Your task to perform on an android device: turn notification dots off Image 0: 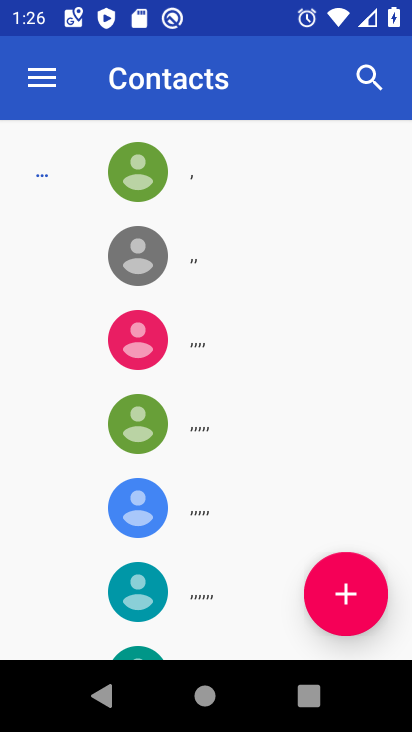
Step 0: press home button
Your task to perform on an android device: turn notification dots off Image 1: 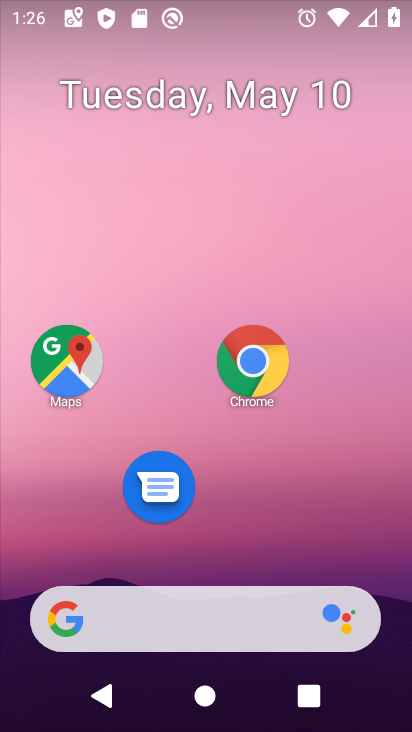
Step 1: drag from (291, 520) to (275, 311)
Your task to perform on an android device: turn notification dots off Image 2: 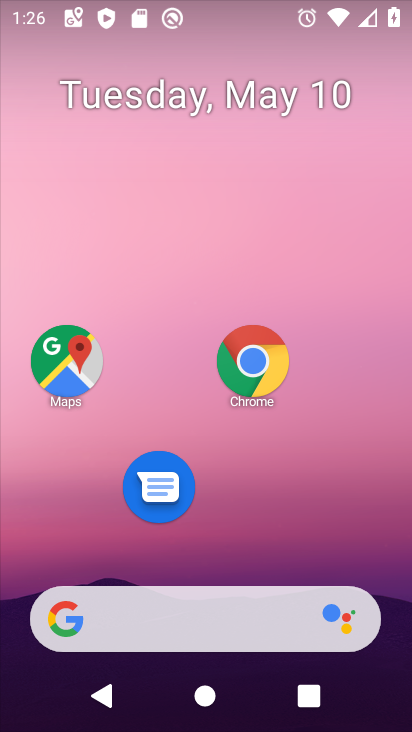
Step 2: drag from (287, 489) to (178, 22)
Your task to perform on an android device: turn notification dots off Image 3: 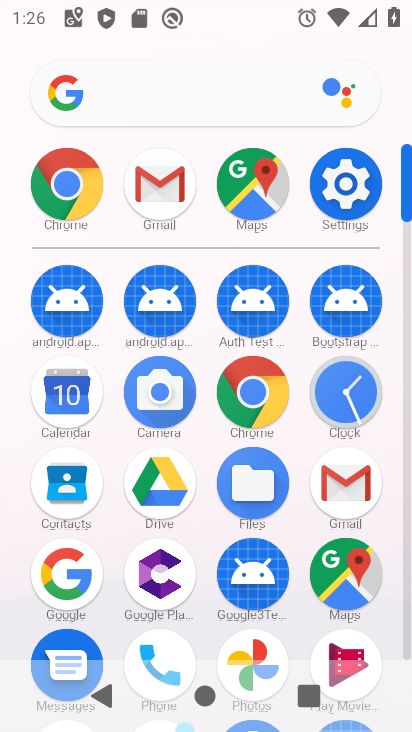
Step 3: click (336, 205)
Your task to perform on an android device: turn notification dots off Image 4: 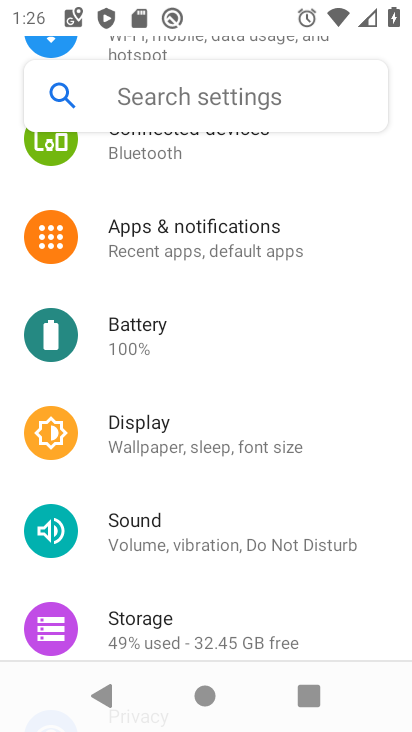
Step 4: drag from (236, 361) to (251, 484)
Your task to perform on an android device: turn notification dots off Image 5: 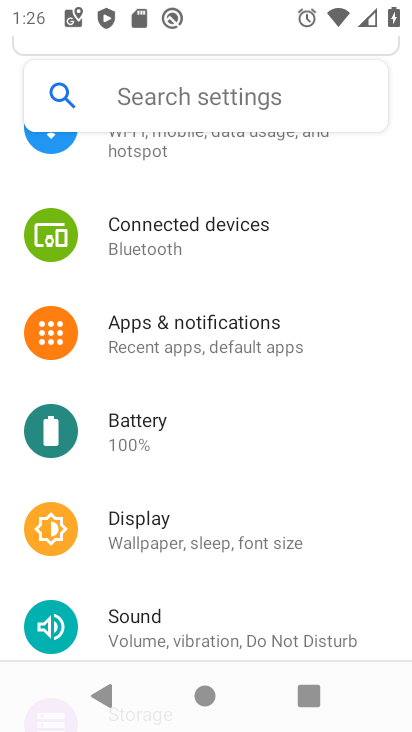
Step 5: drag from (251, 484) to (225, 278)
Your task to perform on an android device: turn notification dots off Image 6: 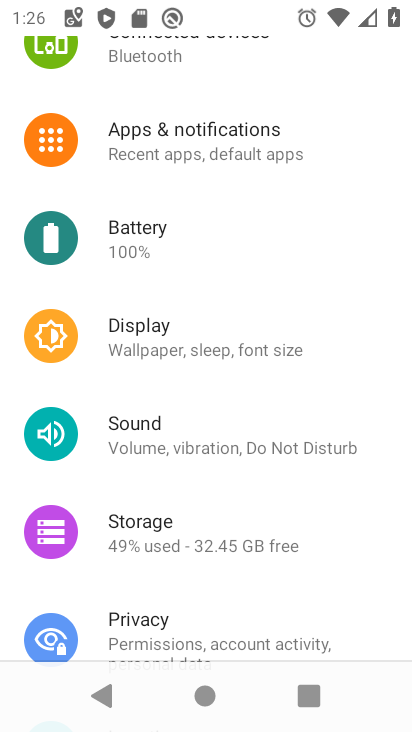
Step 6: drag from (174, 268) to (219, 572)
Your task to perform on an android device: turn notification dots off Image 7: 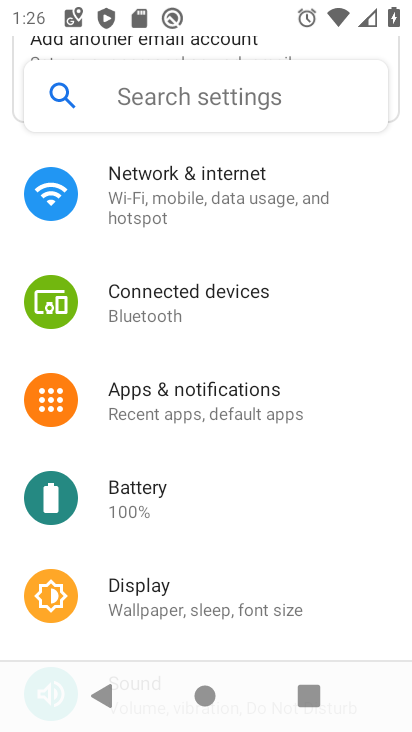
Step 7: click (213, 389)
Your task to perform on an android device: turn notification dots off Image 8: 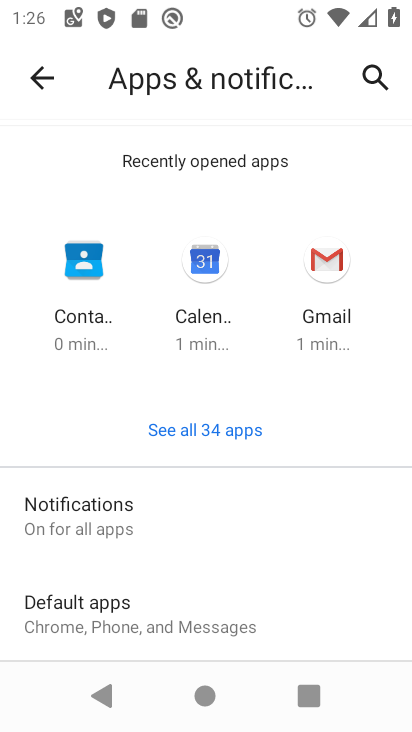
Step 8: drag from (149, 538) to (80, 235)
Your task to perform on an android device: turn notification dots off Image 9: 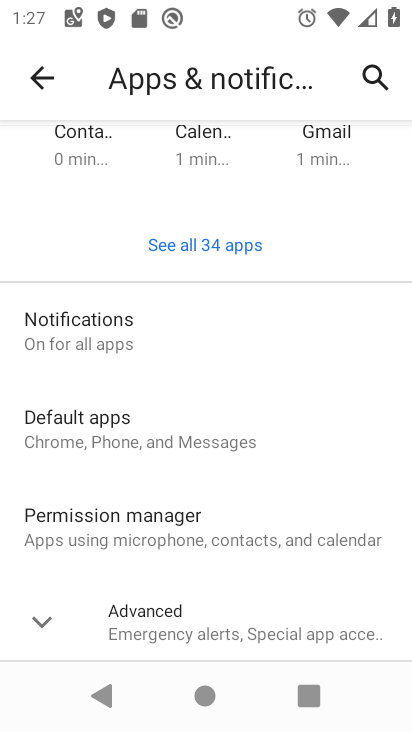
Step 9: click (138, 598)
Your task to perform on an android device: turn notification dots off Image 10: 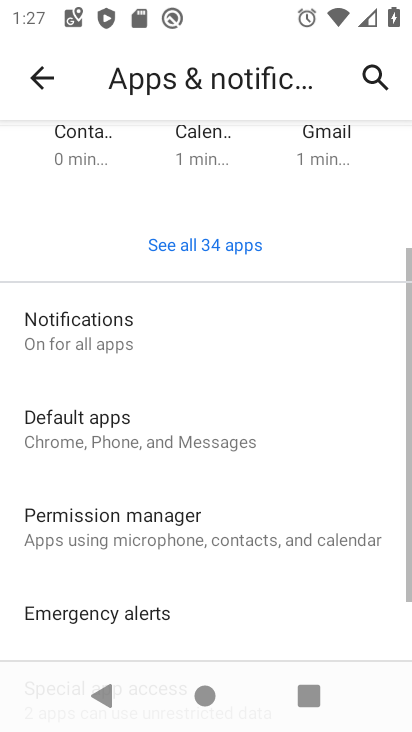
Step 10: drag from (138, 598) to (130, 443)
Your task to perform on an android device: turn notification dots off Image 11: 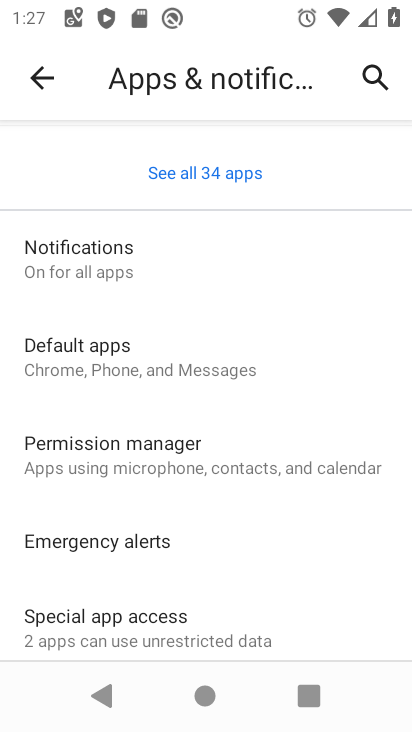
Step 11: click (101, 273)
Your task to perform on an android device: turn notification dots off Image 12: 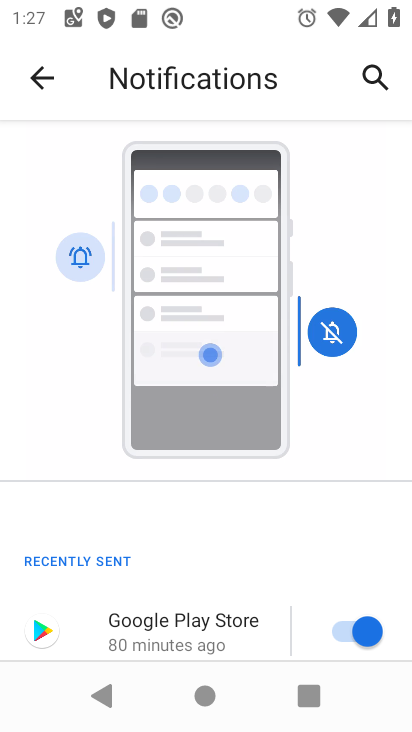
Step 12: drag from (147, 499) to (119, 178)
Your task to perform on an android device: turn notification dots off Image 13: 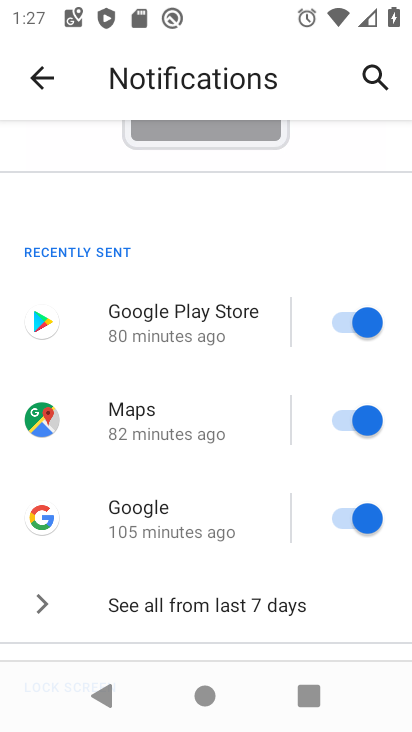
Step 13: drag from (149, 462) to (124, 131)
Your task to perform on an android device: turn notification dots off Image 14: 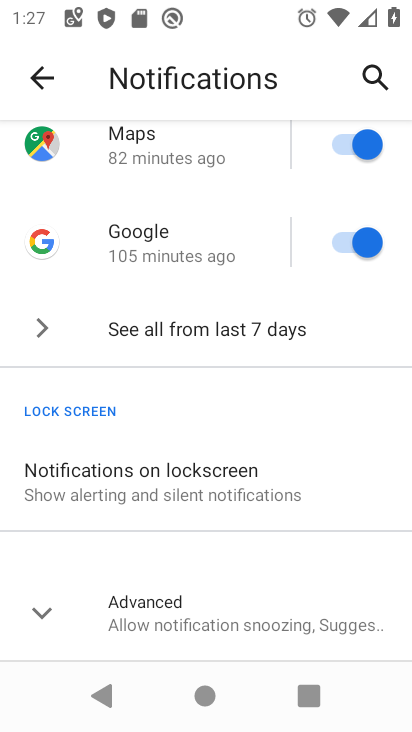
Step 14: click (64, 596)
Your task to perform on an android device: turn notification dots off Image 15: 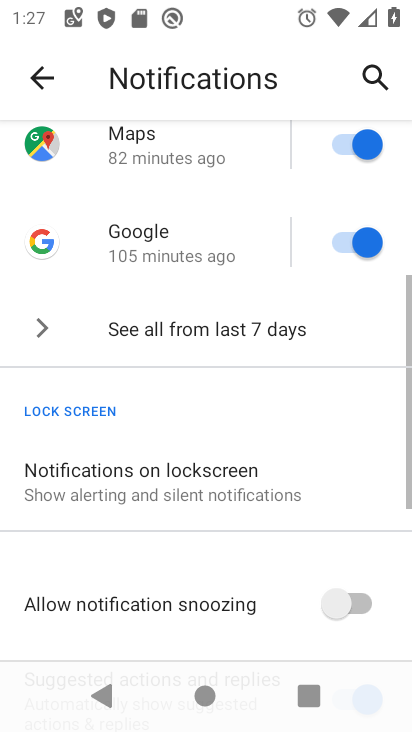
Step 15: drag from (64, 596) to (48, 212)
Your task to perform on an android device: turn notification dots off Image 16: 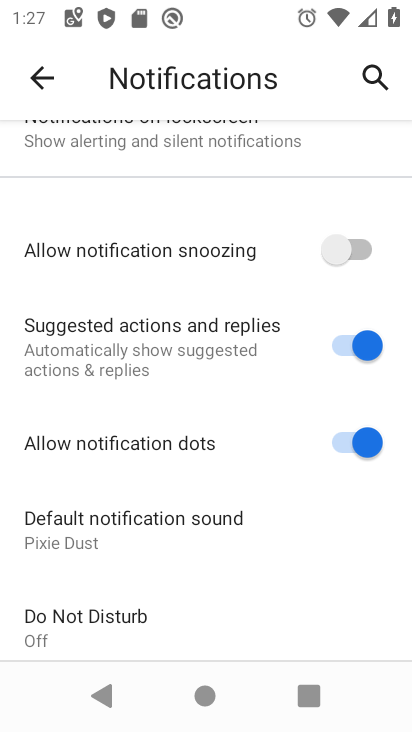
Step 16: click (94, 479)
Your task to perform on an android device: turn notification dots off Image 17: 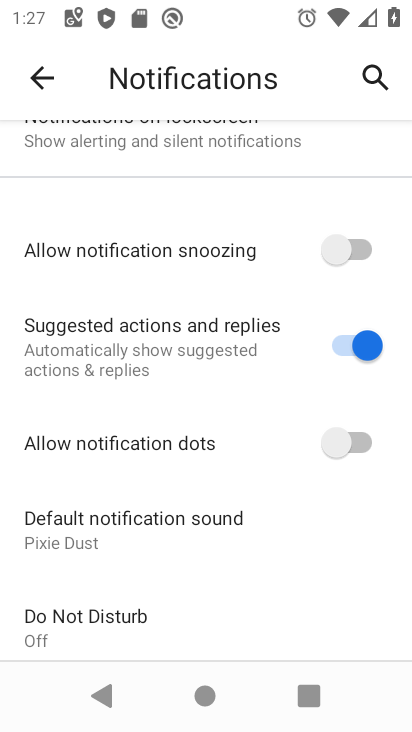
Step 17: task complete